Your task to perform on an android device: turn off priority inbox in the gmail app Image 0: 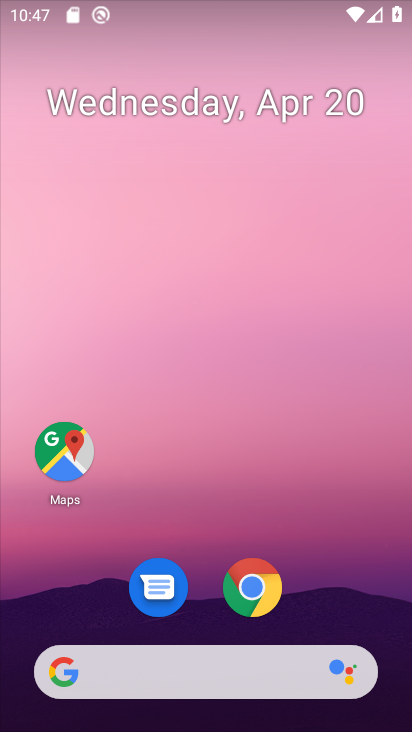
Step 0: drag from (313, 519) to (214, 59)
Your task to perform on an android device: turn off priority inbox in the gmail app Image 1: 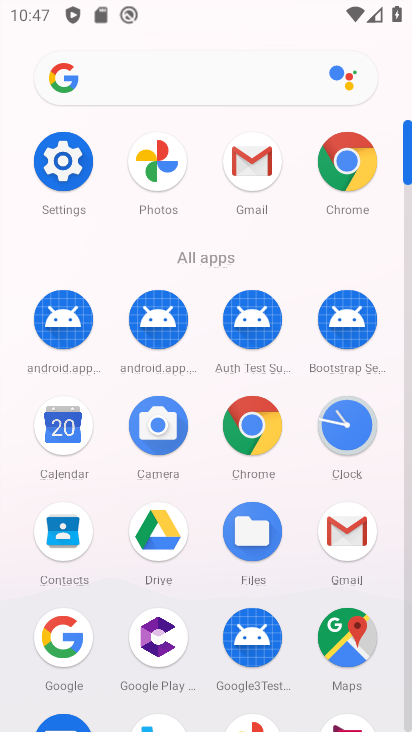
Step 1: click (352, 532)
Your task to perform on an android device: turn off priority inbox in the gmail app Image 2: 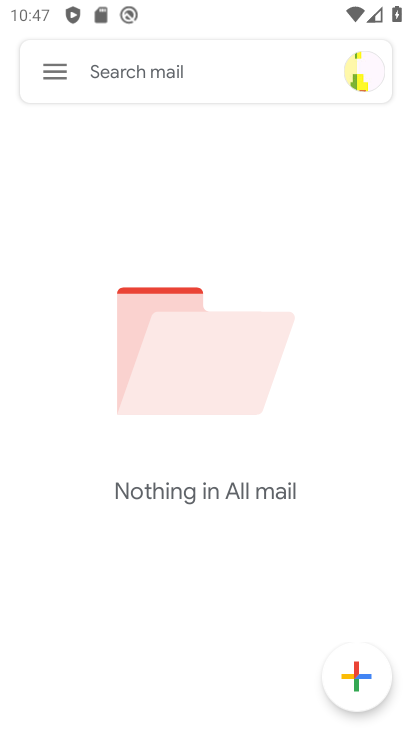
Step 2: click (52, 68)
Your task to perform on an android device: turn off priority inbox in the gmail app Image 3: 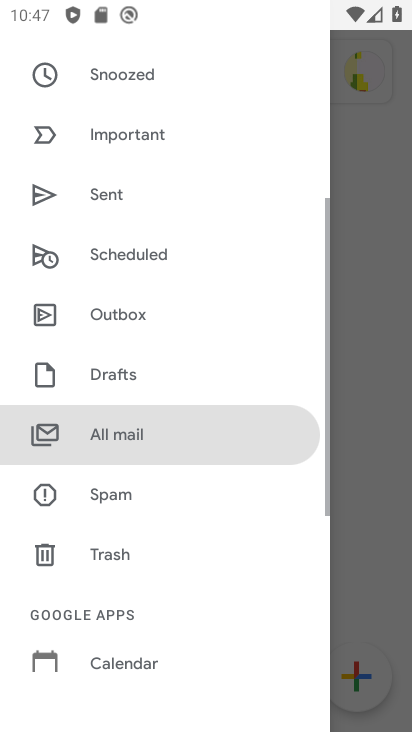
Step 3: drag from (181, 551) to (212, 197)
Your task to perform on an android device: turn off priority inbox in the gmail app Image 4: 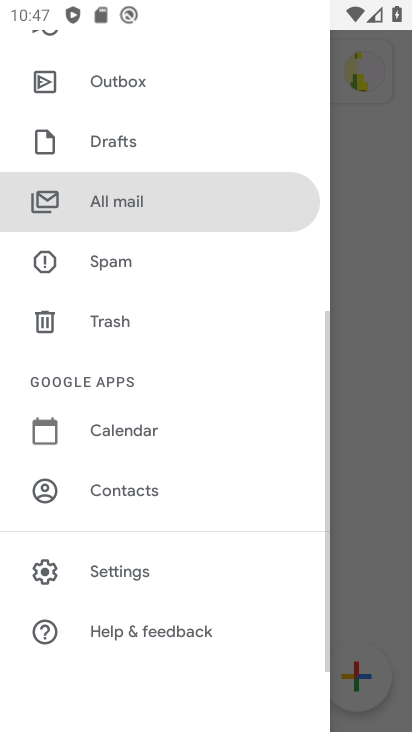
Step 4: click (153, 569)
Your task to perform on an android device: turn off priority inbox in the gmail app Image 5: 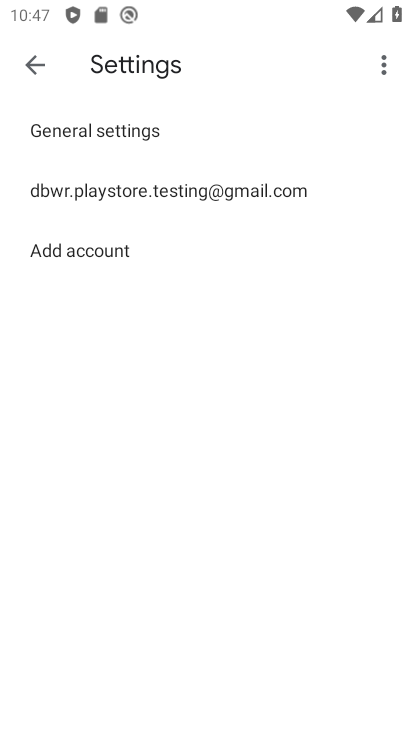
Step 5: click (152, 191)
Your task to perform on an android device: turn off priority inbox in the gmail app Image 6: 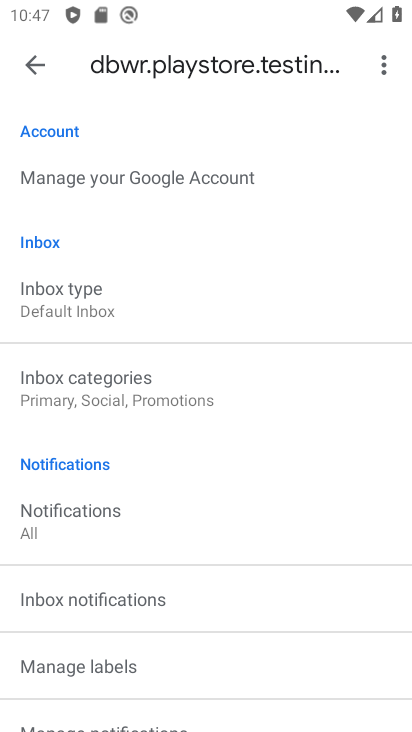
Step 6: drag from (206, 330) to (208, 165)
Your task to perform on an android device: turn off priority inbox in the gmail app Image 7: 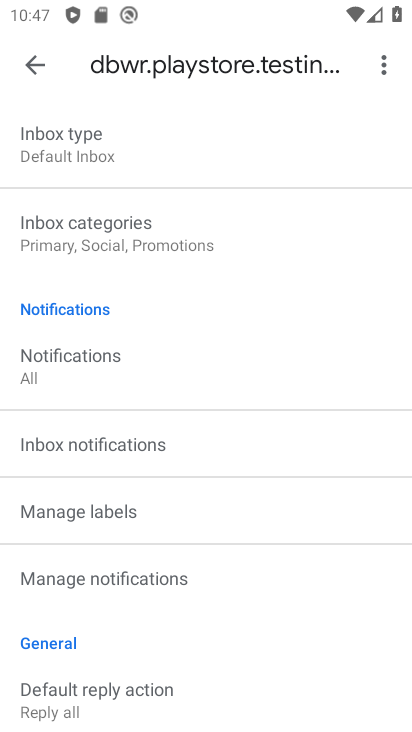
Step 7: drag from (295, 535) to (291, 206)
Your task to perform on an android device: turn off priority inbox in the gmail app Image 8: 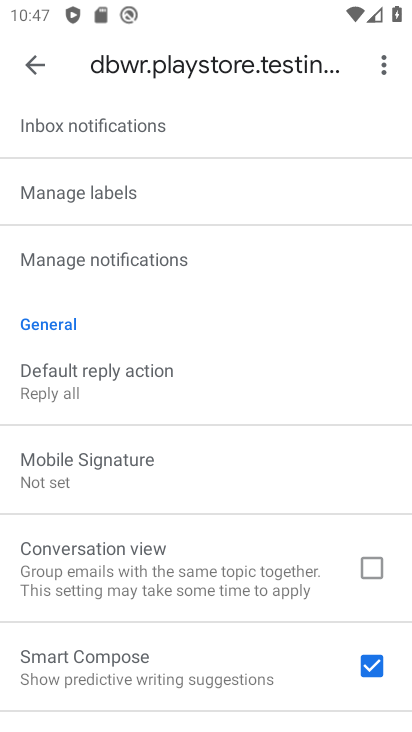
Step 8: drag from (243, 617) to (239, 174)
Your task to perform on an android device: turn off priority inbox in the gmail app Image 9: 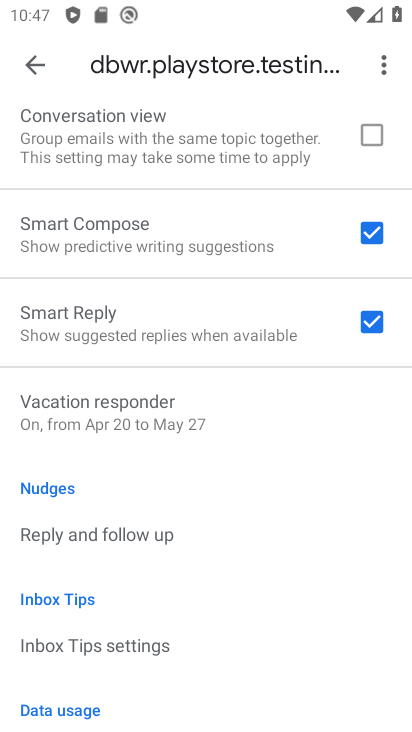
Step 9: drag from (241, 186) to (257, 591)
Your task to perform on an android device: turn off priority inbox in the gmail app Image 10: 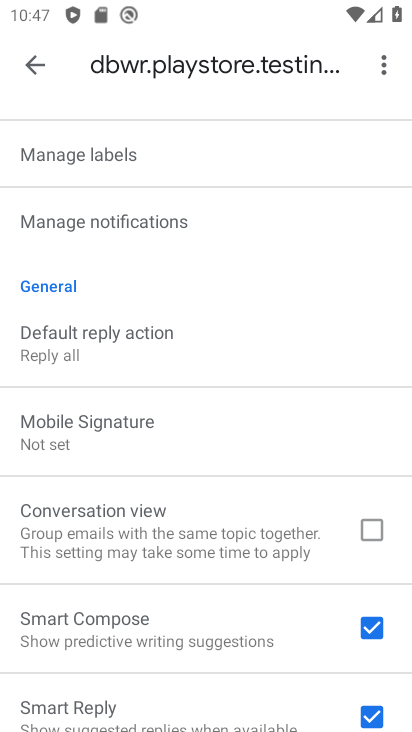
Step 10: drag from (233, 281) to (233, 607)
Your task to perform on an android device: turn off priority inbox in the gmail app Image 11: 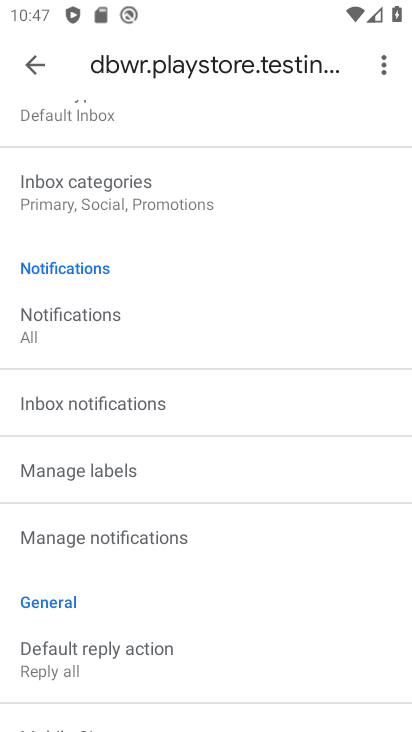
Step 11: drag from (192, 200) to (228, 478)
Your task to perform on an android device: turn off priority inbox in the gmail app Image 12: 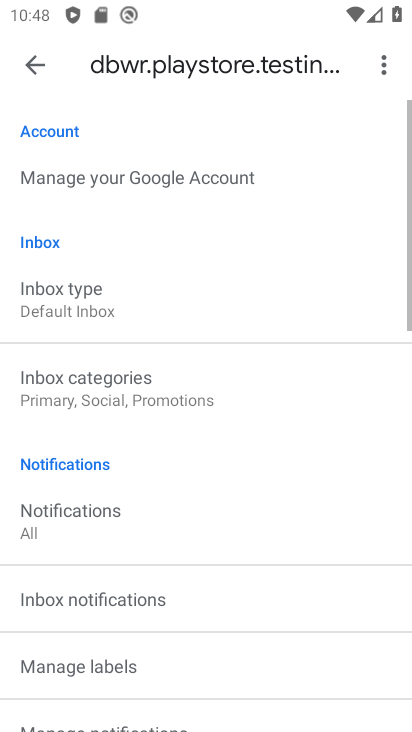
Step 12: click (125, 295)
Your task to perform on an android device: turn off priority inbox in the gmail app Image 13: 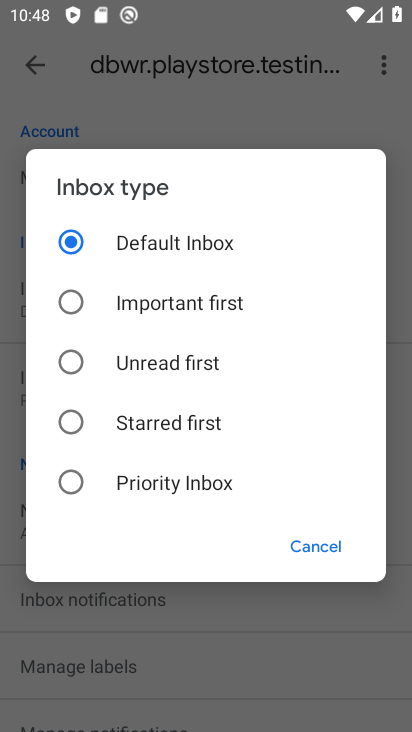
Step 13: click (144, 484)
Your task to perform on an android device: turn off priority inbox in the gmail app Image 14: 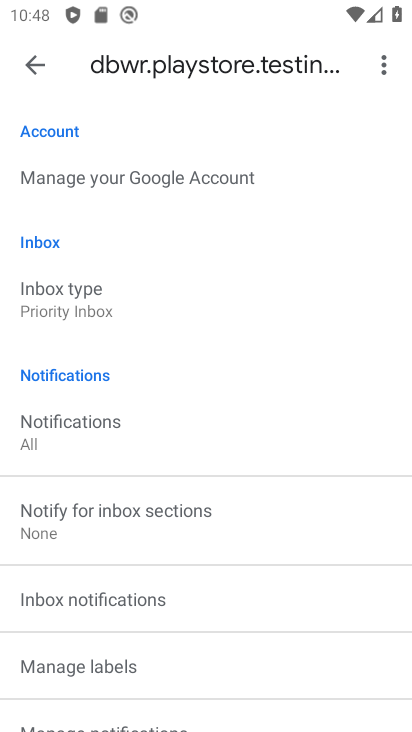
Step 14: click (131, 294)
Your task to perform on an android device: turn off priority inbox in the gmail app Image 15: 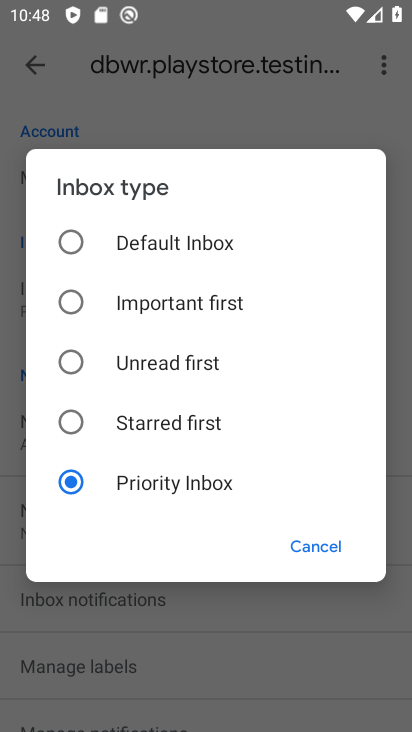
Step 15: click (141, 417)
Your task to perform on an android device: turn off priority inbox in the gmail app Image 16: 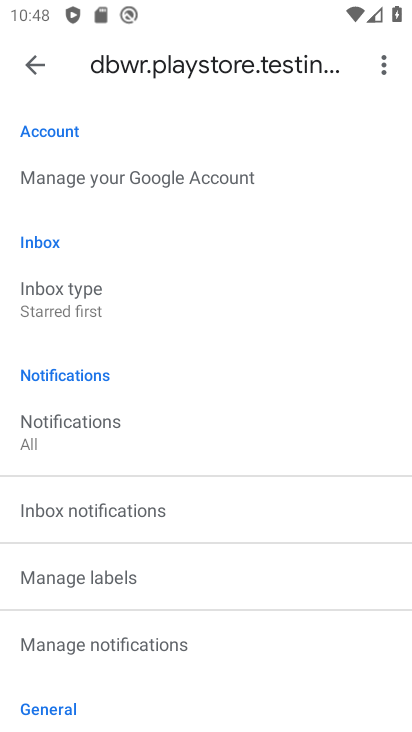
Step 16: task complete